Your task to perform on an android device: Open the web browser Image 0: 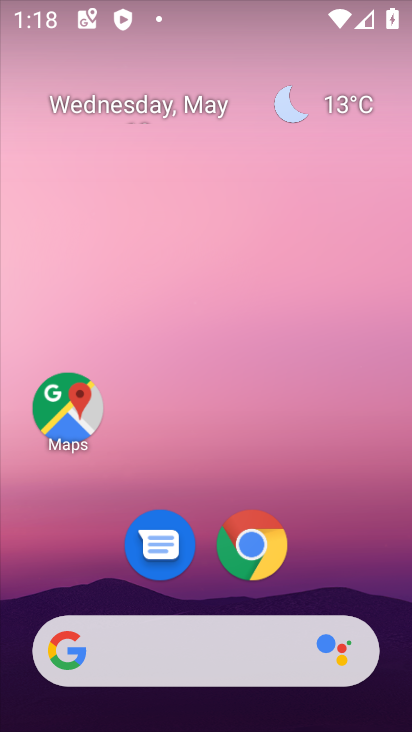
Step 0: click (261, 553)
Your task to perform on an android device: Open the web browser Image 1: 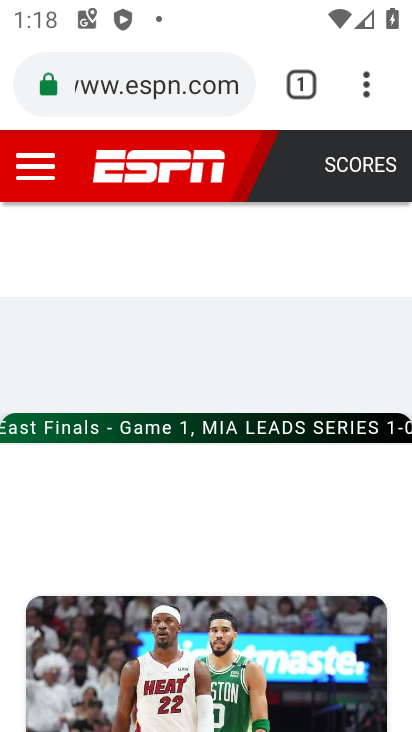
Step 1: task complete